Your task to perform on an android device: Go to CNN.com Image 0: 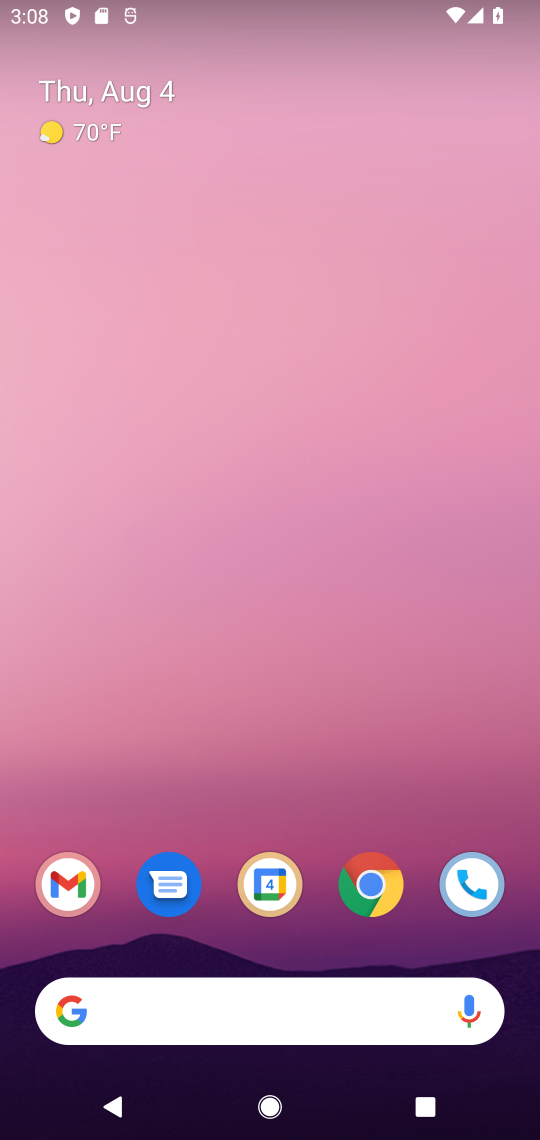
Step 0: drag from (187, 901) to (253, 98)
Your task to perform on an android device: Go to CNN.com Image 1: 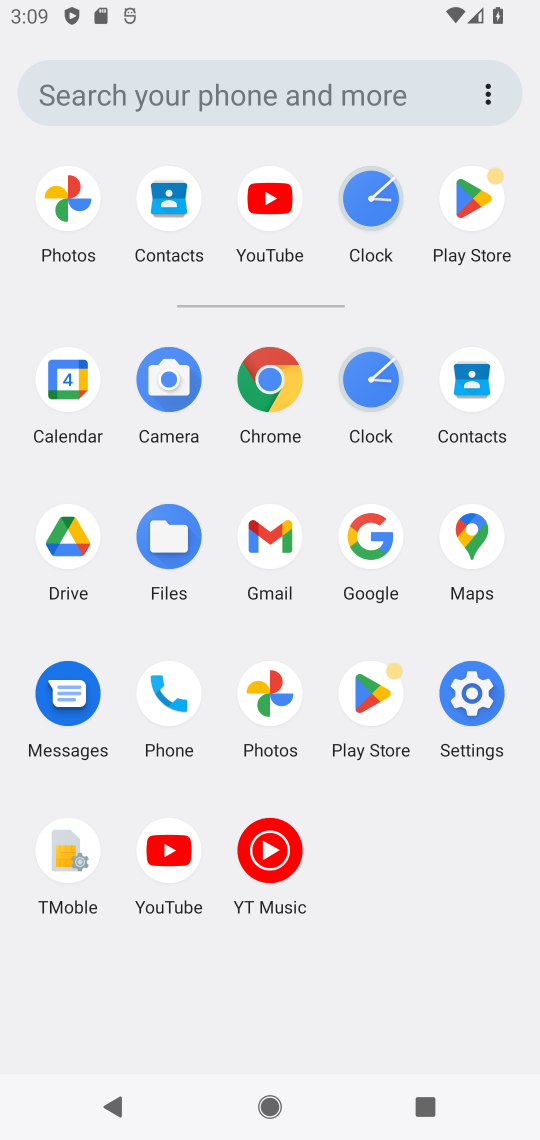
Step 1: click (270, 390)
Your task to perform on an android device: Go to CNN.com Image 2: 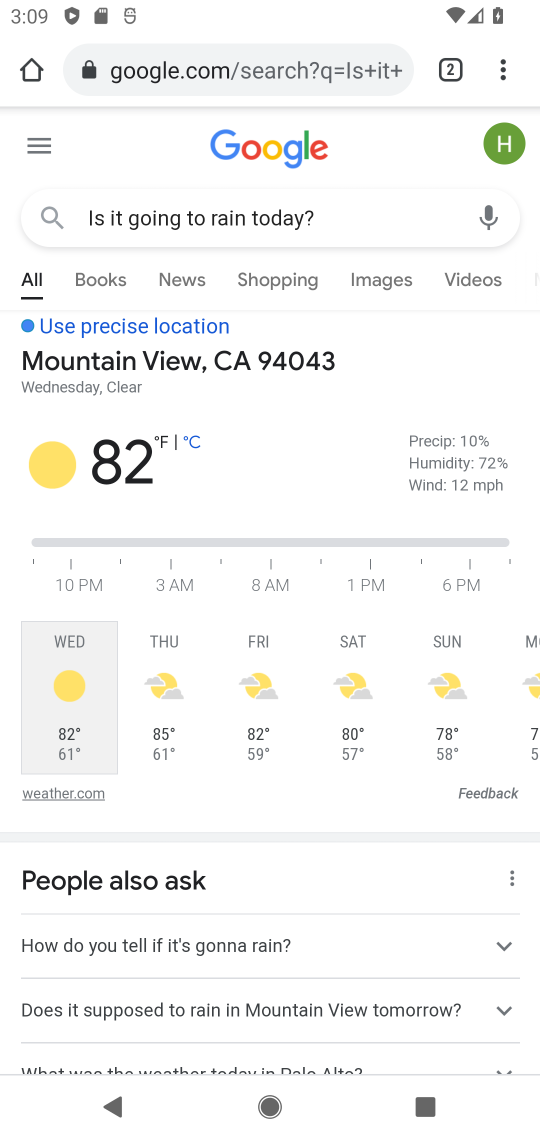
Step 2: click (515, 61)
Your task to perform on an android device: Go to CNN.com Image 3: 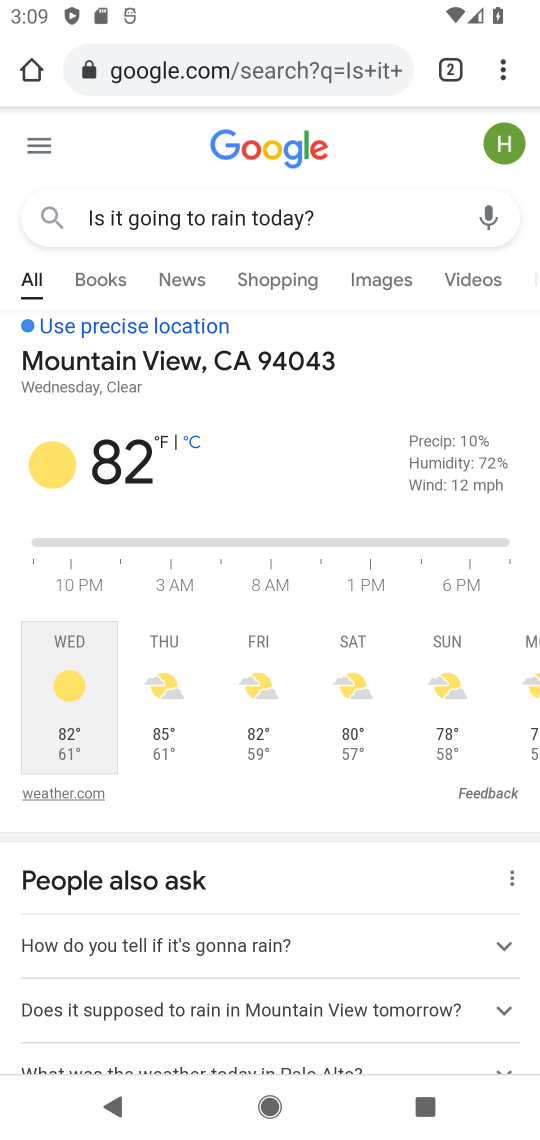
Step 3: click (494, 61)
Your task to perform on an android device: Go to CNN.com Image 4: 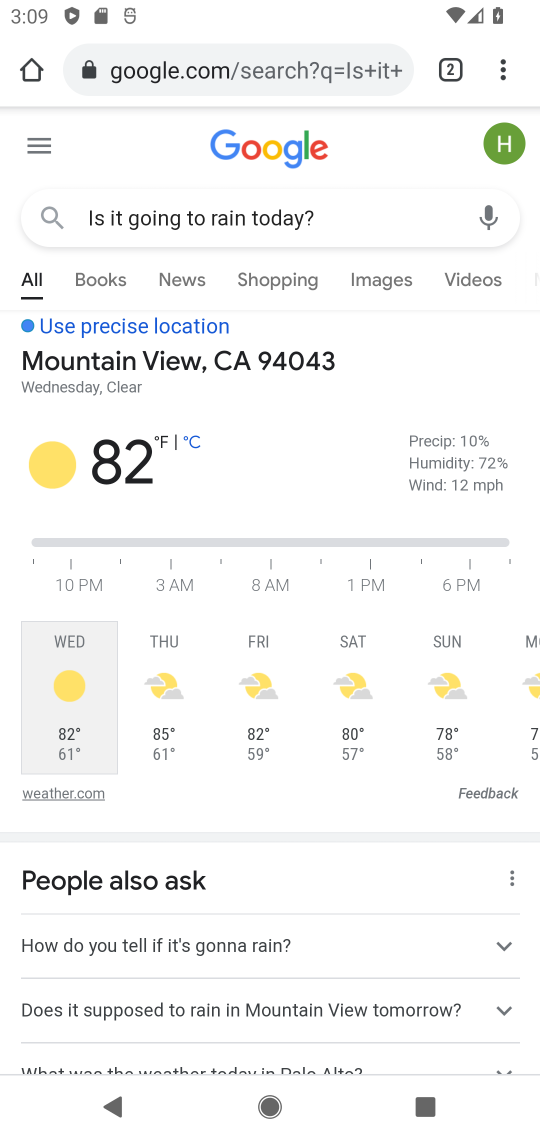
Step 4: click (518, 58)
Your task to perform on an android device: Go to CNN.com Image 5: 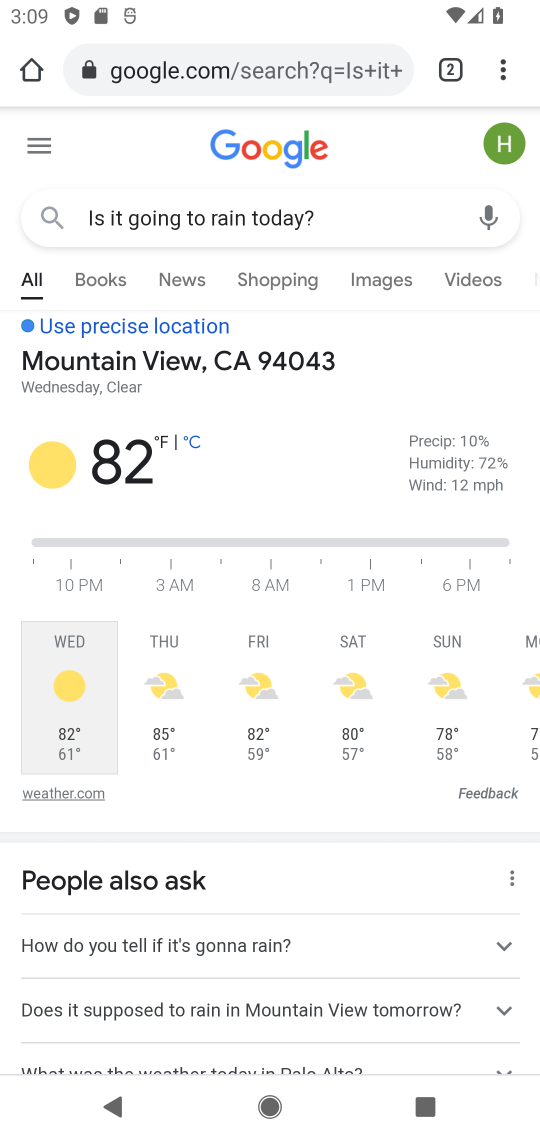
Step 5: click (491, 73)
Your task to perform on an android device: Go to CNN.com Image 6: 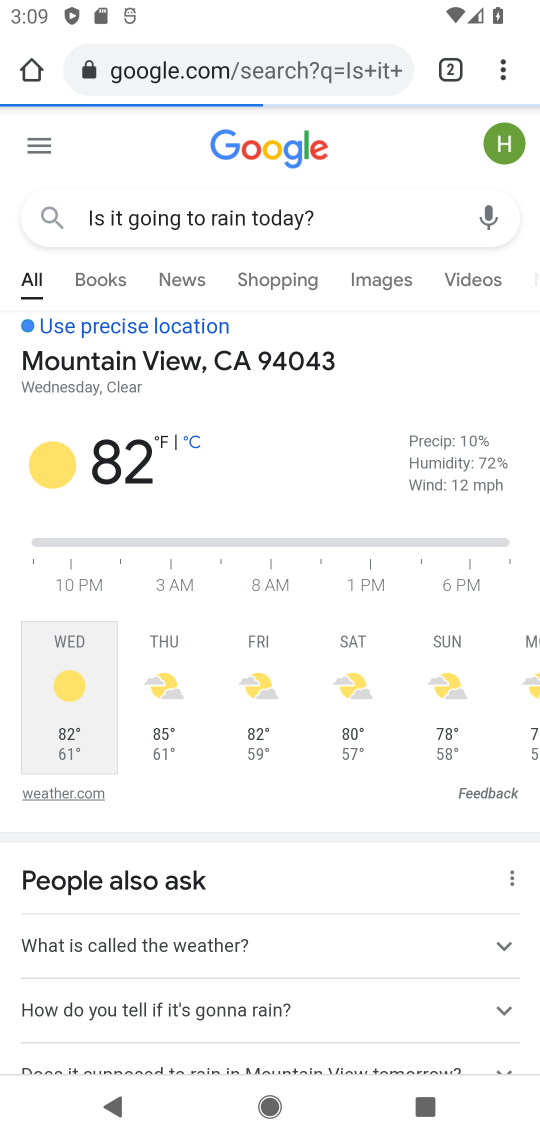
Step 6: click (473, 62)
Your task to perform on an android device: Go to CNN.com Image 7: 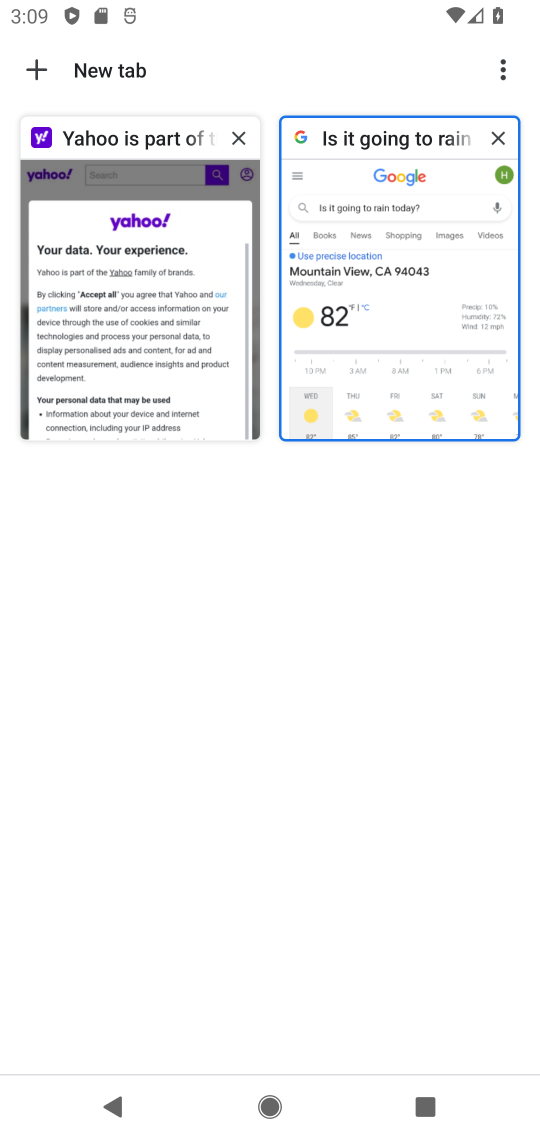
Step 7: click (498, 75)
Your task to perform on an android device: Go to CNN.com Image 8: 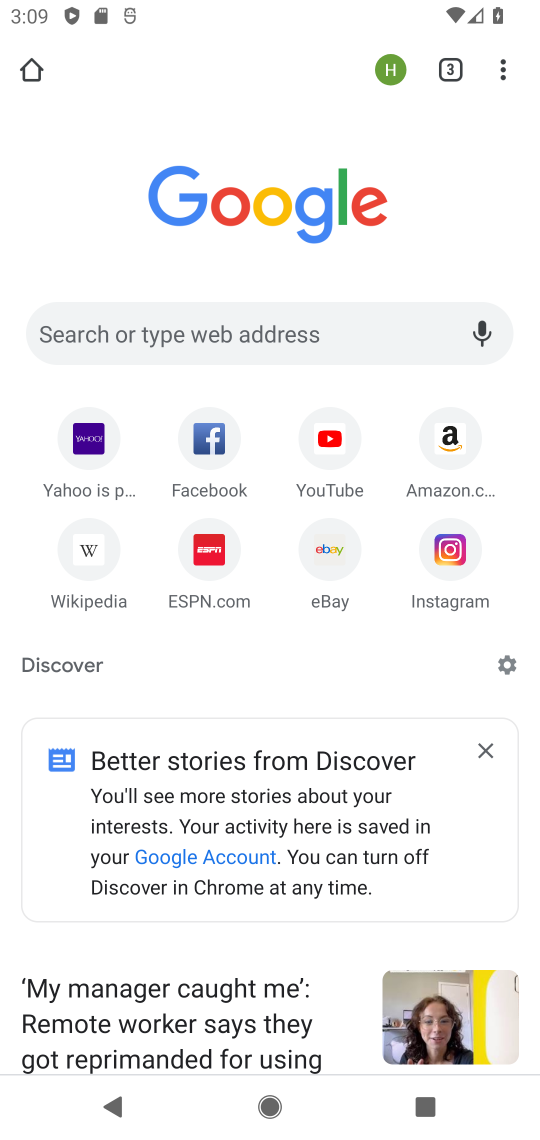
Step 8: click (504, 57)
Your task to perform on an android device: Go to CNN.com Image 9: 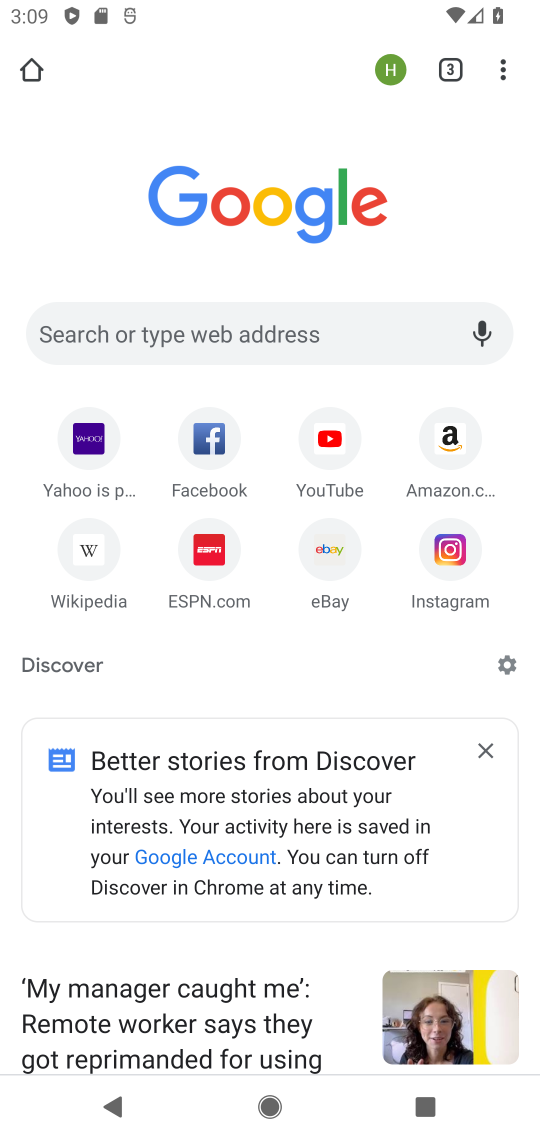
Step 9: click (507, 57)
Your task to perform on an android device: Go to CNN.com Image 10: 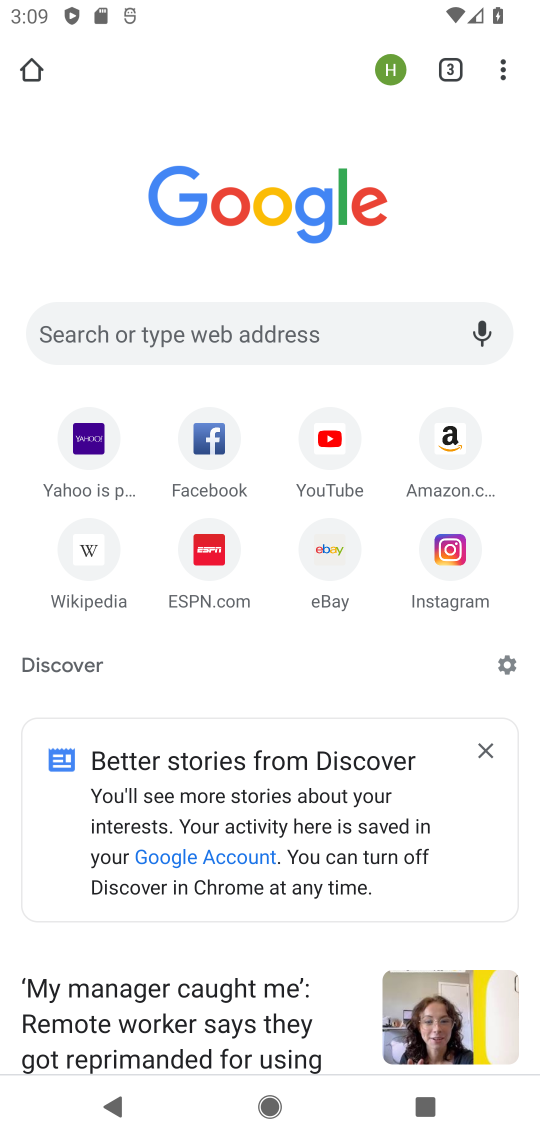
Step 10: click (507, 57)
Your task to perform on an android device: Go to CNN.com Image 11: 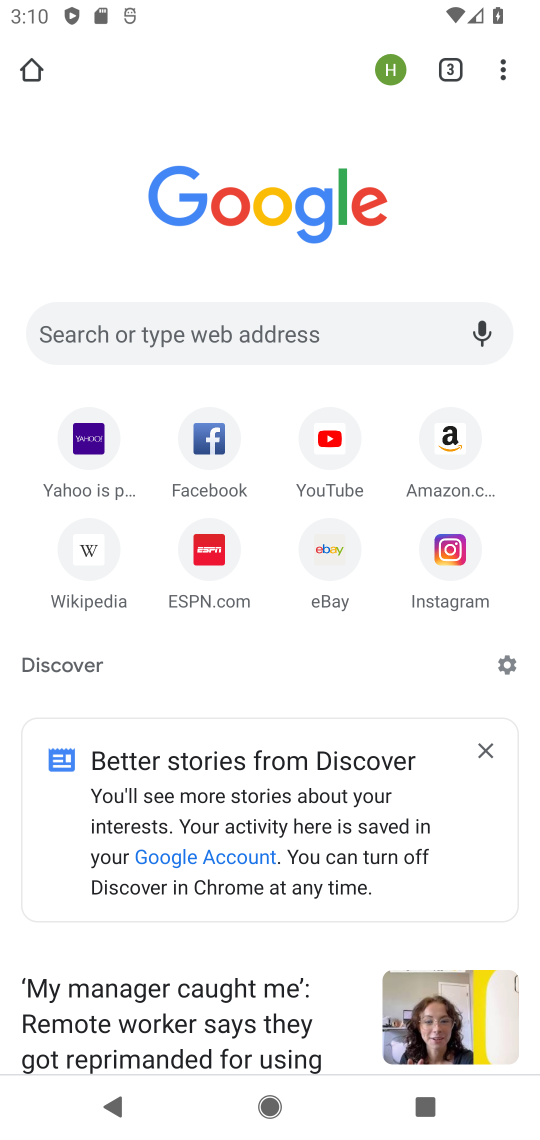
Step 11: click (193, 321)
Your task to perform on an android device: Go to CNN.com Image 12: 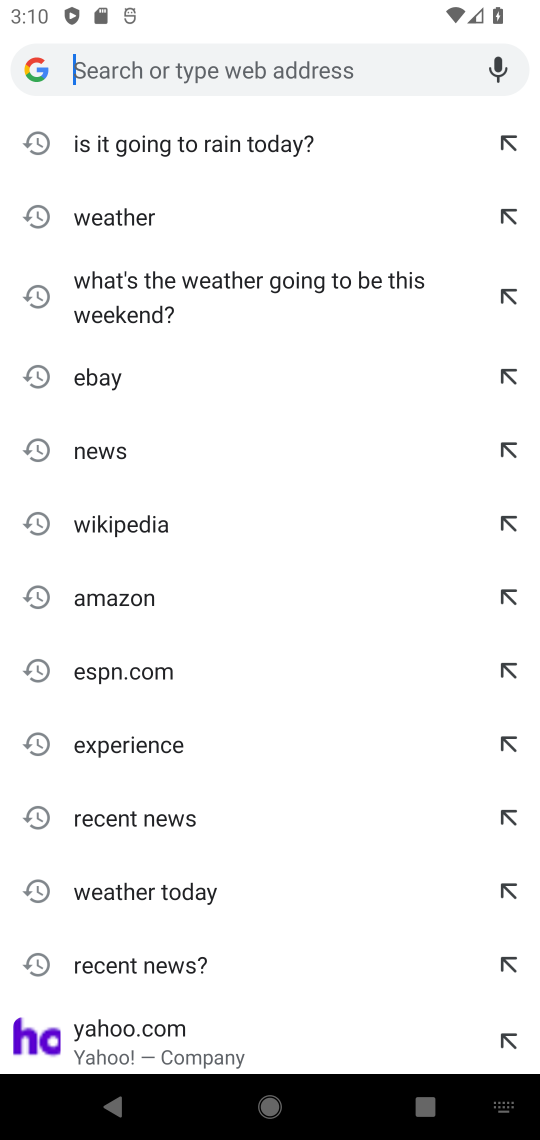
Step 12: type "CNN.com "
Your task to perform on an android device: Go to CNN.com Image 13: 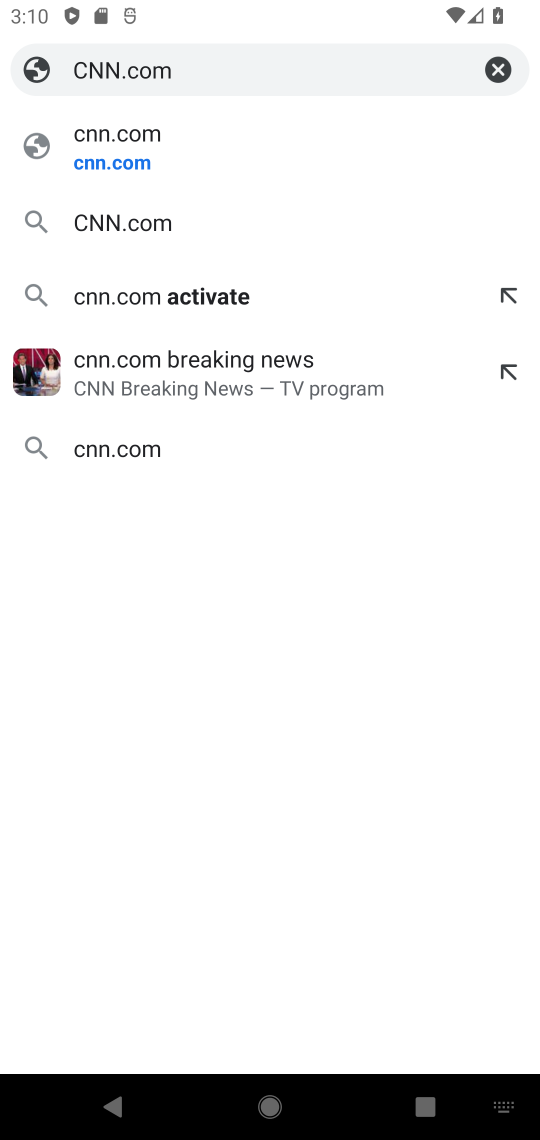
Step 13: click (141, 159)
Your task to perform on an android device: Go to CNN.com Image 14: 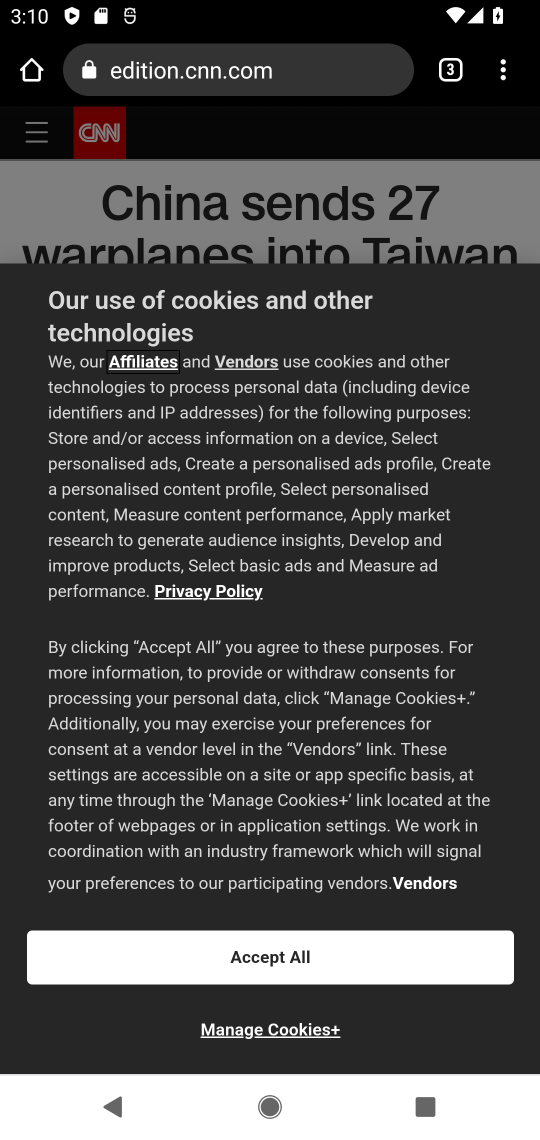
Step 14: task complete